Your task to perform on an android device: Open calendar and show me the fourth week of next month Image 0: 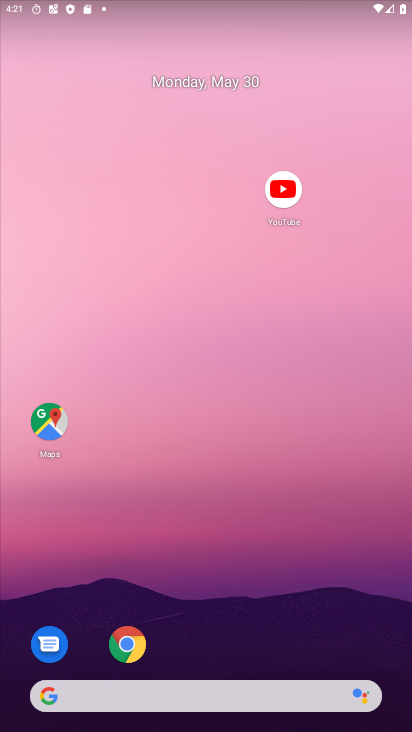
Step 0: click (180, 88)
Your task to perform on an android device: Open calendar and show me the fourth week of next month Image 1: 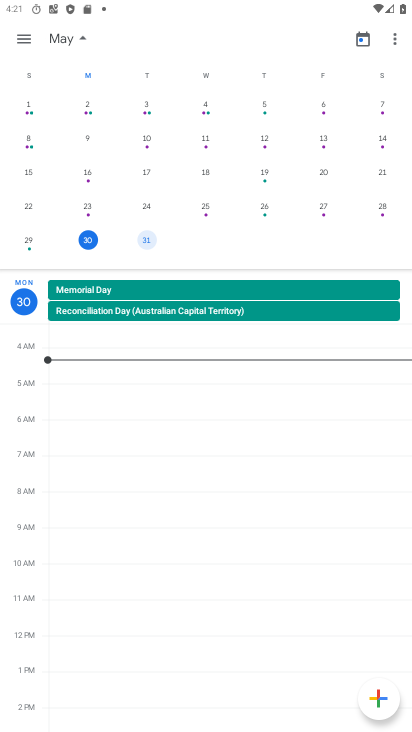
Step 1: drag from (324, 242) to (35, 214)
Your task to perform on an android device: Open calendar and show me the fourth week of next month Image 2: 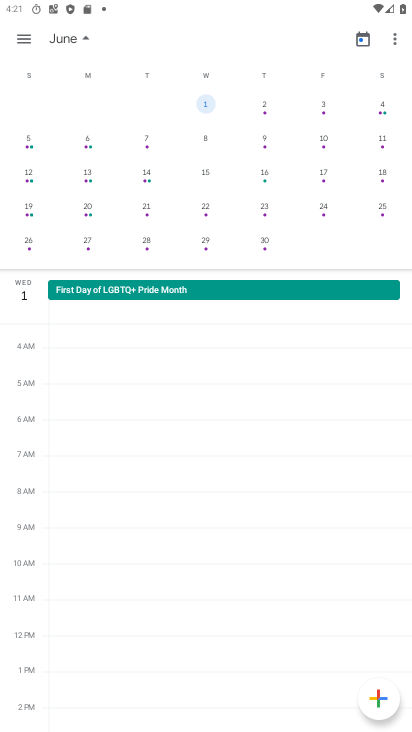
Step 2: click (209, 207)
Your task to perform on an android device: Open calendar and show me the fourth week of next month Image 3: 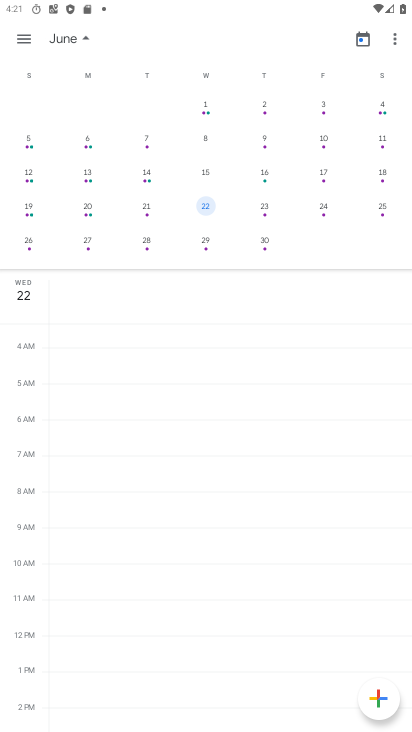
Step 3: task complete